Your task to perform on an android device: Show me popular games on the Play Store Image 0: 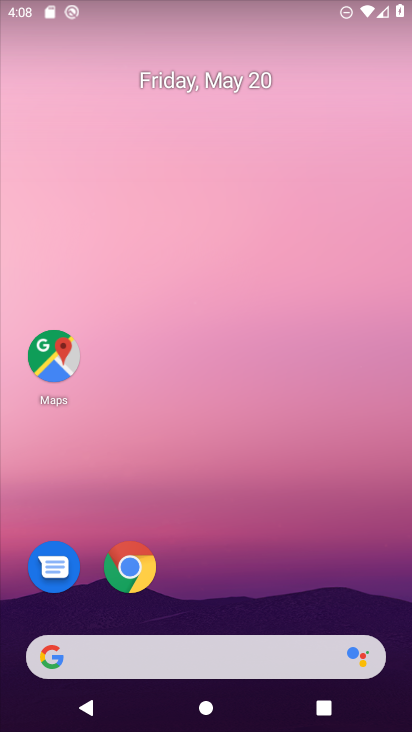
Step 0: drag from (243, 707) to (245, 155)
Your task to perform on an android device: Show me popular games on the Play Store Image 1: 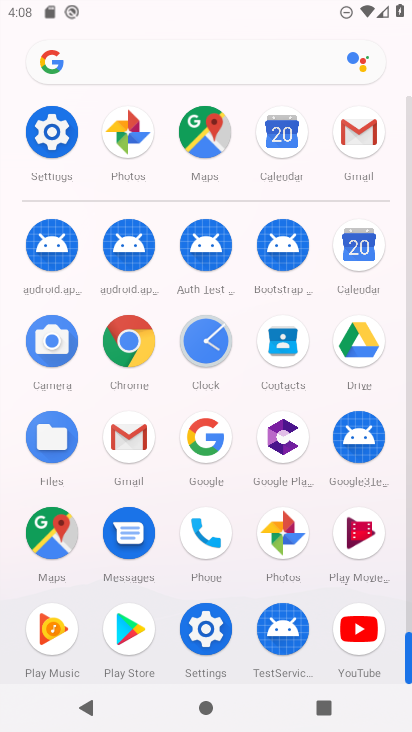
Step 1: click (130, 637)
Your task to perform on an android device: Show me popular games on the Play Store Image 2: 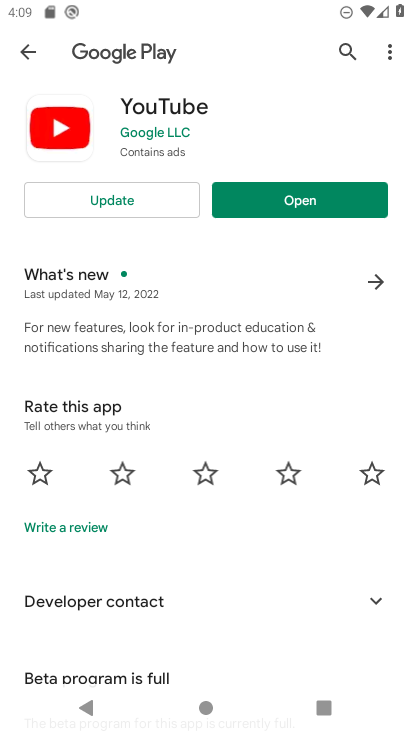
Step 2: click (29, 52)
Your task to perform on an android device: Show me popular games on the Play Store Image 3: 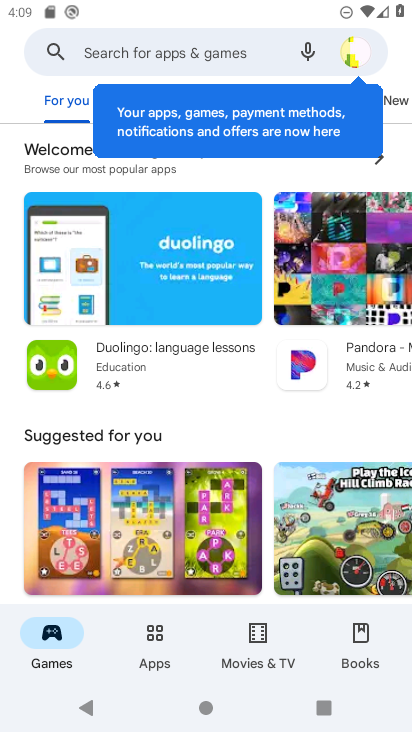
Step 3: drag from (195, 563) to (205, 222)
Your task to perform on an android device: Show me popular games on the Play Store Image 4: 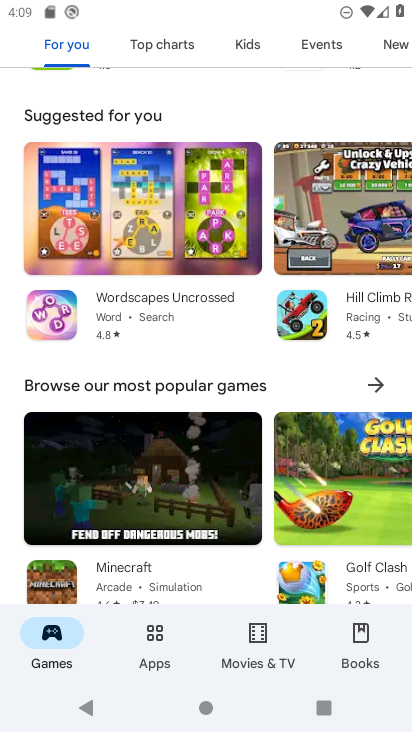
Step 4: click (382, 379)
Your task to perform on an android device: Show me popular games on the Play Store Image 5: 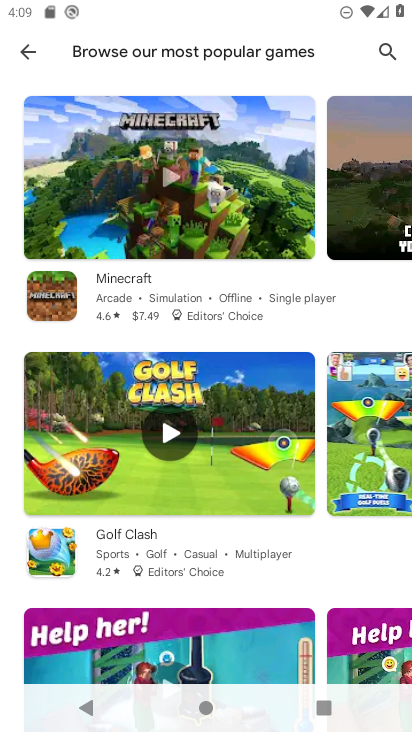
Step 5: task complete